Your task to perform on an android device: toggle notification dots Image 0: 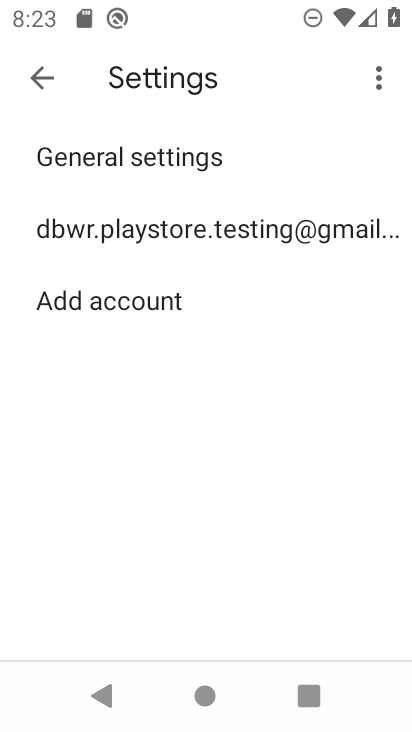
Step 0: press back button
Your task to perform on an android device: toggle notification dots Image 1: 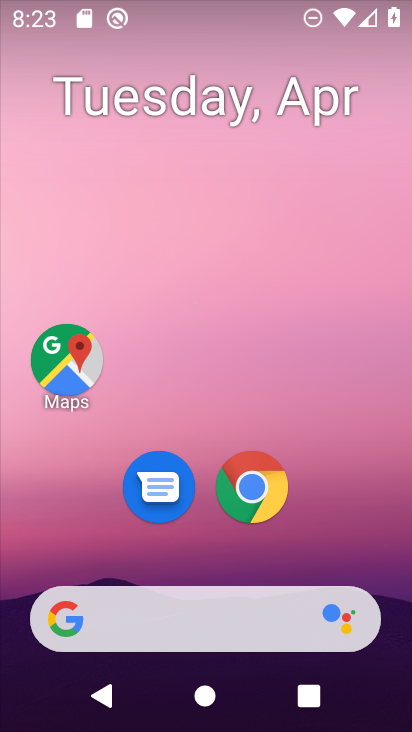
Step 1: drag from (143, 585) to (143, 304)
Your task to perform on an android device: toggle notification dots Image 2: 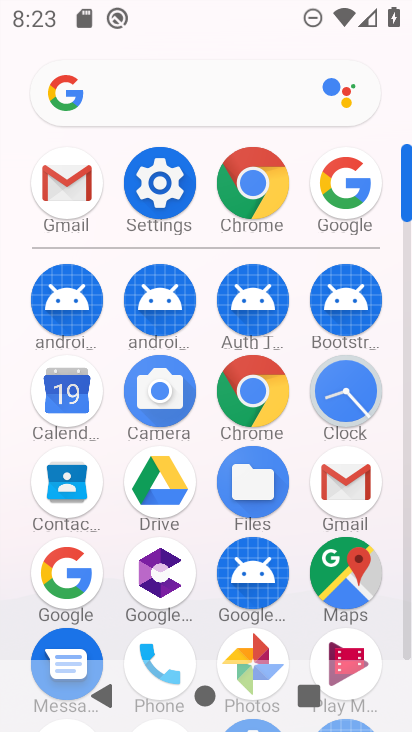
Step 2: click (157, 171)
Your task to perform on an android device: toggle notification dots Image 3: 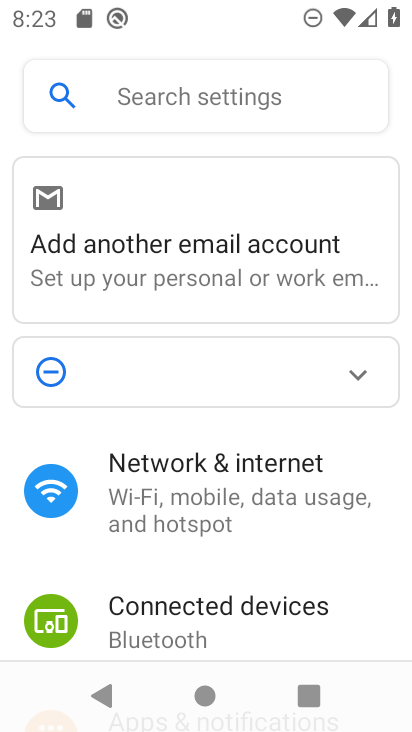
Step 3: drag from (204, 625) to (221, 360)
Your task to perform on an android device: toggle notification dots Image 4: 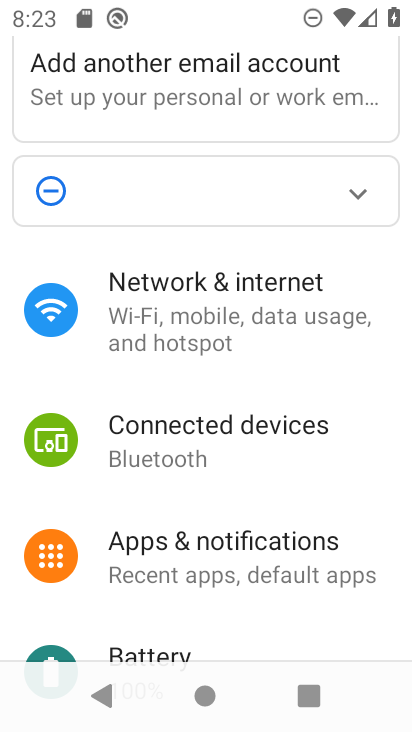
Step 4: click (204, 545)
Your task to perform on an android device: toggle notification dots Image 5: 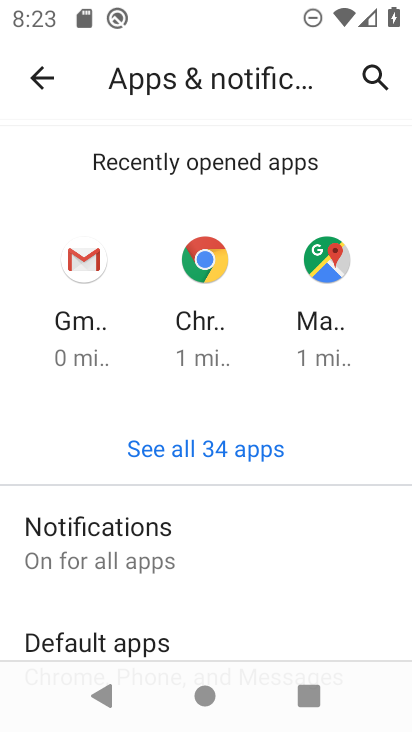
Step 5: click (140, 545)
Your task to perform on an android device: toggle notification dots Image 6: 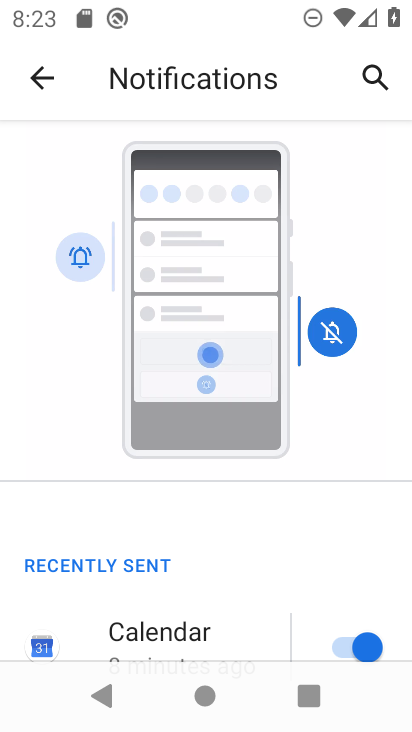
Step 6: drag from (300, 636) to (319, 218)
Your task to perform on an android device: toggle notification dots Image 7: 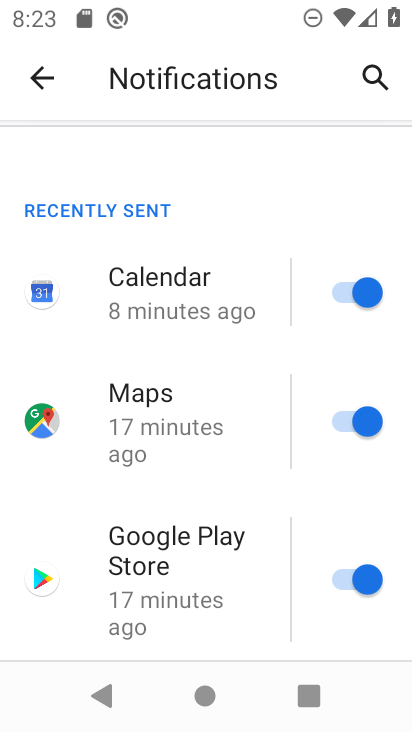
Step 7: drag from (301, 593) to (303, 230)
Your task to perform on an android device: toggle notification dots Image 8: 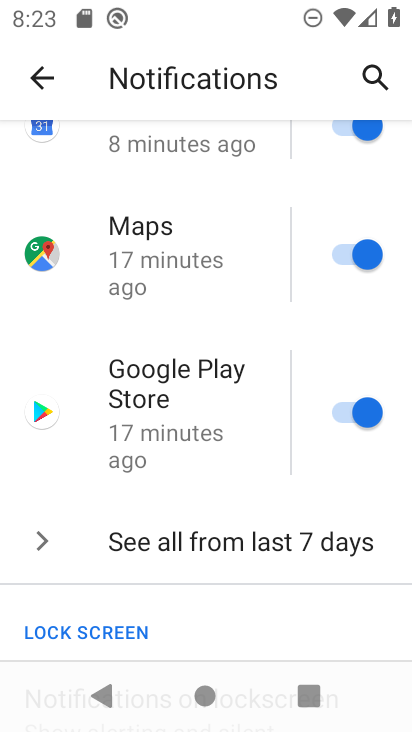
Step 8: drag from (263, 617) to (263, 237)
Your task to perform on an android device: toggle notification dots Image 9: 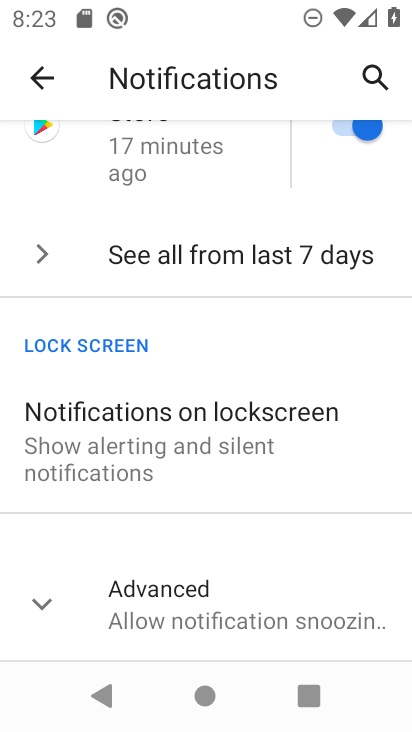
Step 9: click (166, 596)
Your task to perform on an android device: toggle notification dots Image 10: 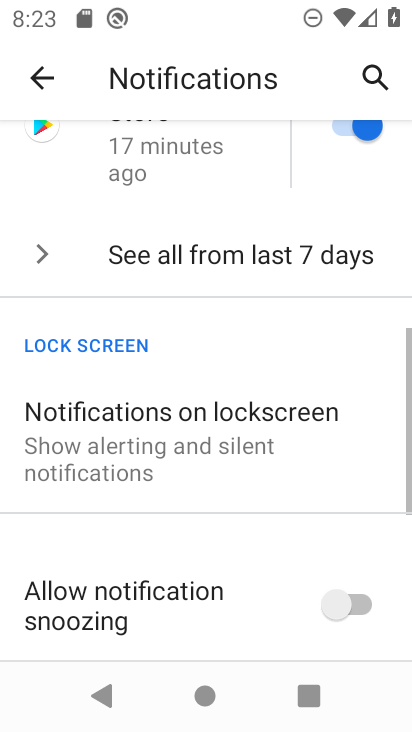
Step 10: drag from (251, 637) to (285, 280)
Your task to perform on an android device: toggle notification dots Image 11: 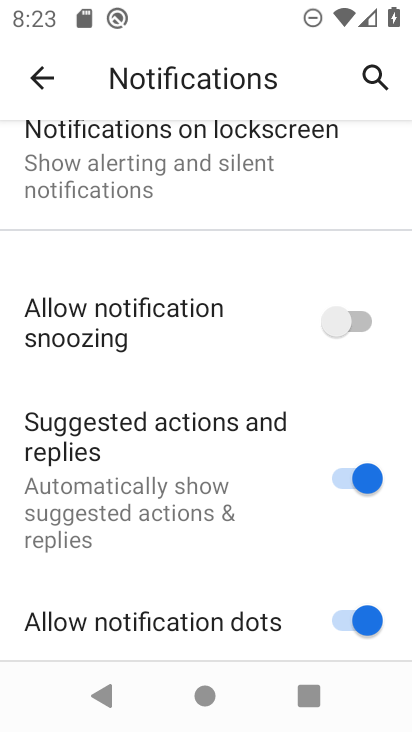
Step 11: click (339, 619)
Your task to perform on an android device: toggle notification dots Image 12: 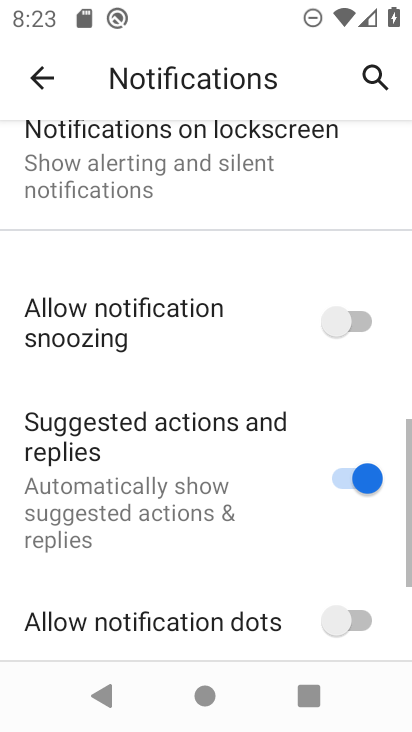
Step 12: task complete